Your task to perform on an android device: change the clock style Image 0: 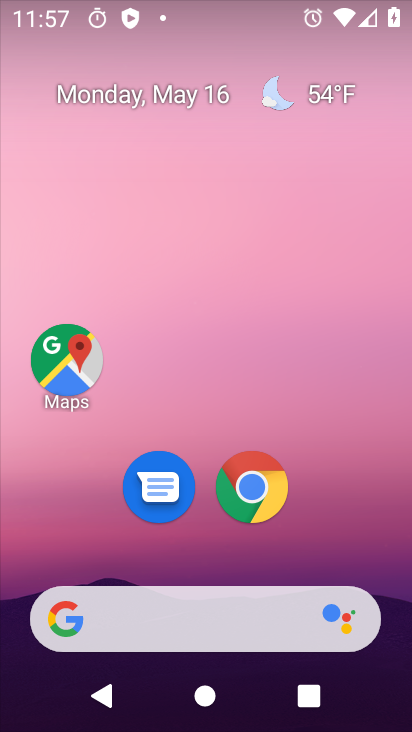
Step 0: drag from (211, 564) to (280, 52)
Your task to perform on an android device: change the clock style Image 1: 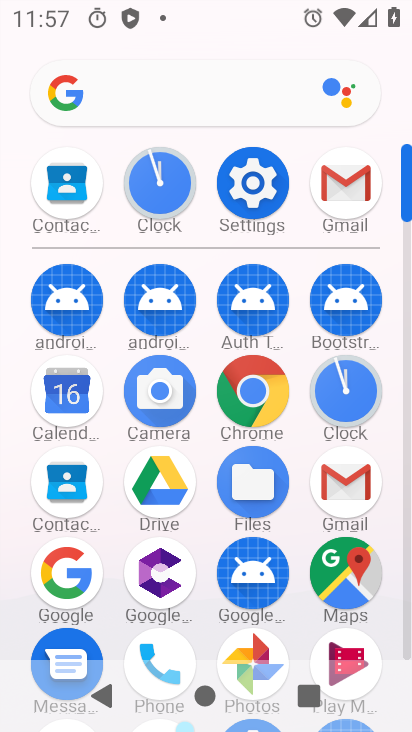
Step 1: click (351, 390)
Your task to perform on an android device: change the clock style Image 2: 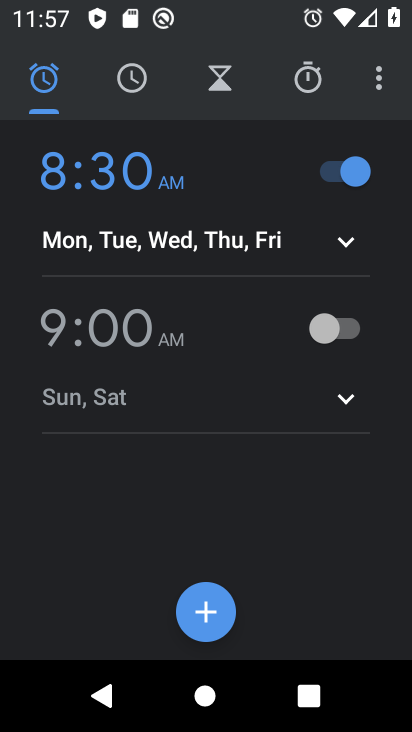
Step 2: click (377, 79)
Your task to perform on an android device: change the clock style Image 3: 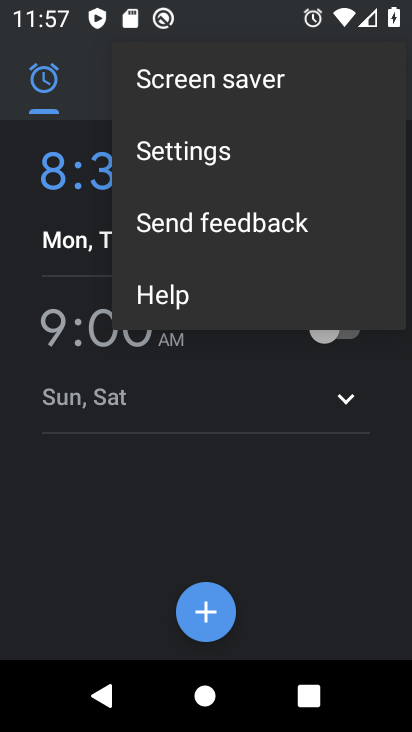
Step 3: click (160, 162)
Your task to perform on an android device: change the clock style Image 4: 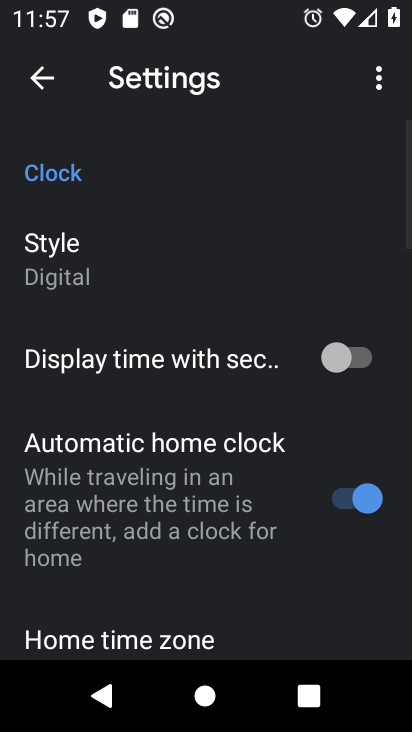
Step 4: click (95, 286)
Your task to perform on an android device: change the clock style Image 5: 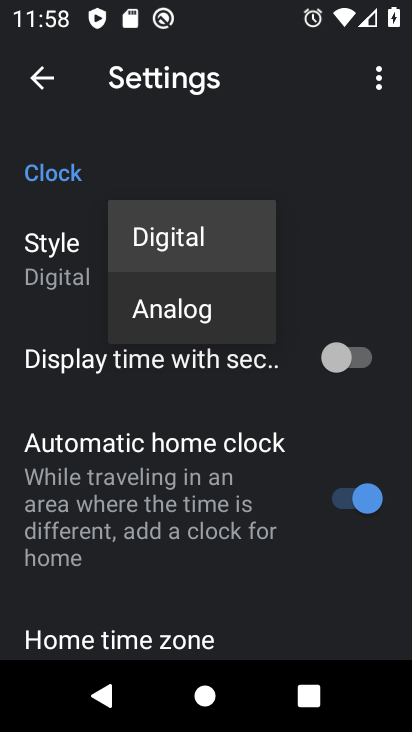
Step 5: click (163, 304)
Your task to perform on an android device: change the clock style Image 6: 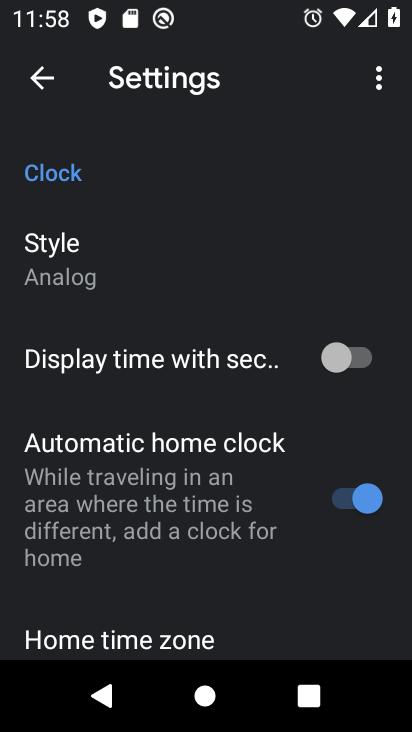
Step 6: task complete